Your task to perform on an android device: turn on showing notifications on the lock screen Image 0: 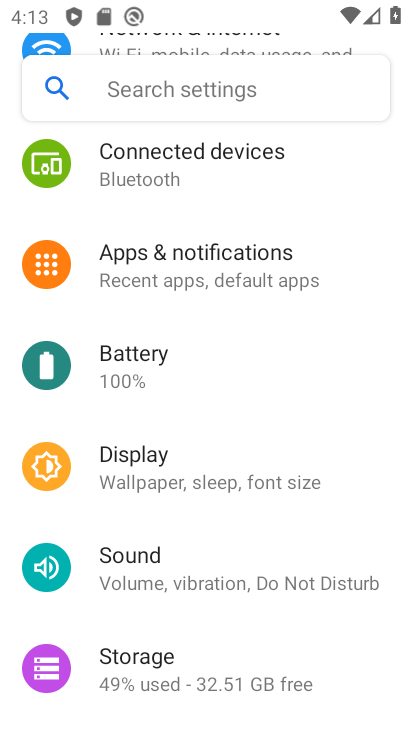
Step 0: click (199, 260)
Your task to perform on an android device: turn on showing notifications on the lock screen Image 1: 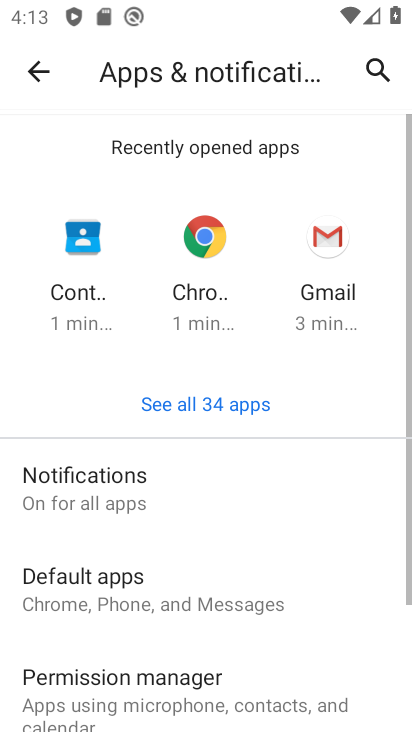
Step 1: click (121, 495)
Your task to perform on an android device: turn on showing notifications on the lock screen Image 2: 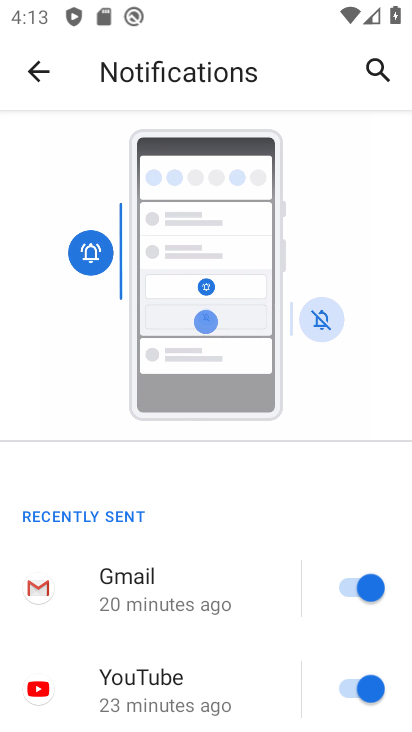
Step 2: task complete